Your task to perform on an android device: open chrome and create a bookmark for the current page Image 0: 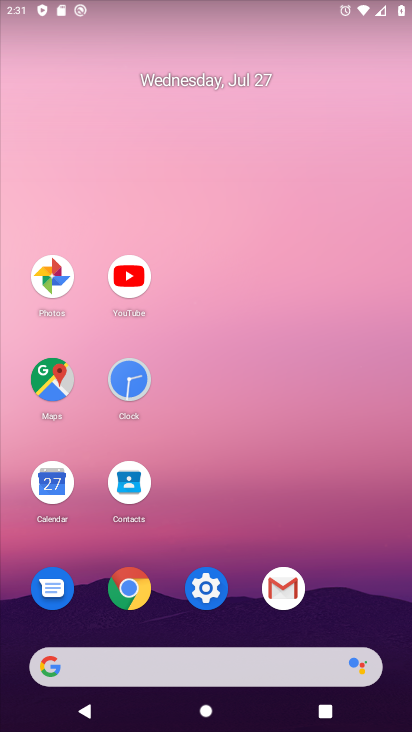
Step 0: click (129, 589)
Your task to perform on an android device: open chrome and create a bookmark for the current page Image 1: 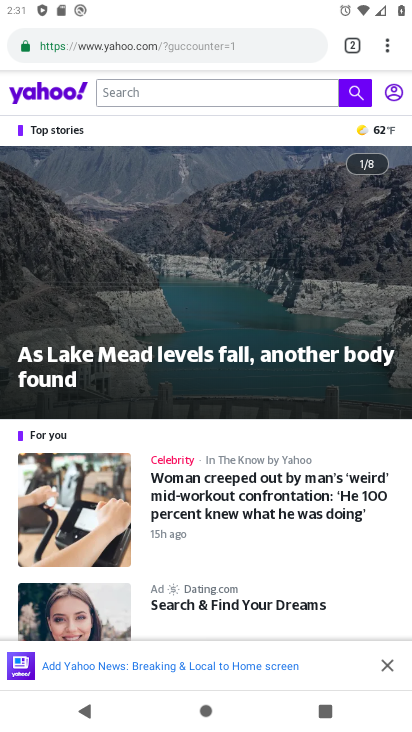
Step 1: click (389, 45)
Your task to perform on an android device: open chrome and create a bookmark for the current page Image 2: 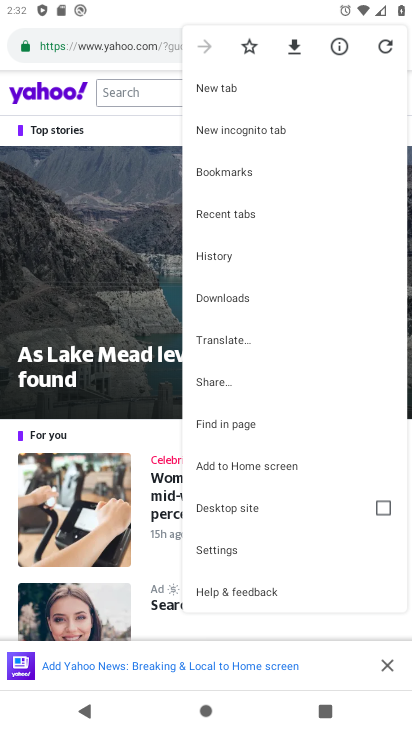
Step 2: click (245, 43)
Your task to perform on an android device: open chrome and create a bookmark for the current page Image 3: 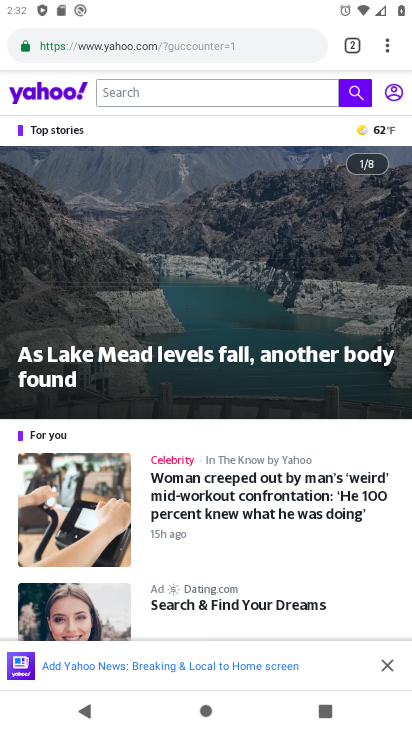
Step 3: task complete